Your task to perform on an android device: Open the Play Movies app and select the watchlist tab. Image 0: 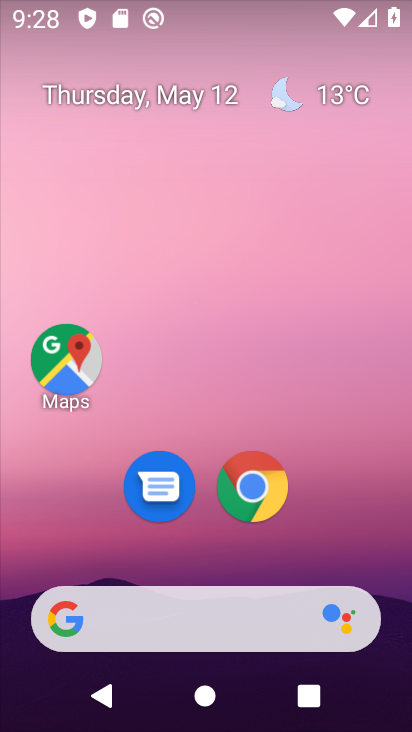
Step 0: drag from (370, 510) to (280, 73)
Your task to perform on an android device: Open the Play Movies app and select the watchlist tab. Image 1: 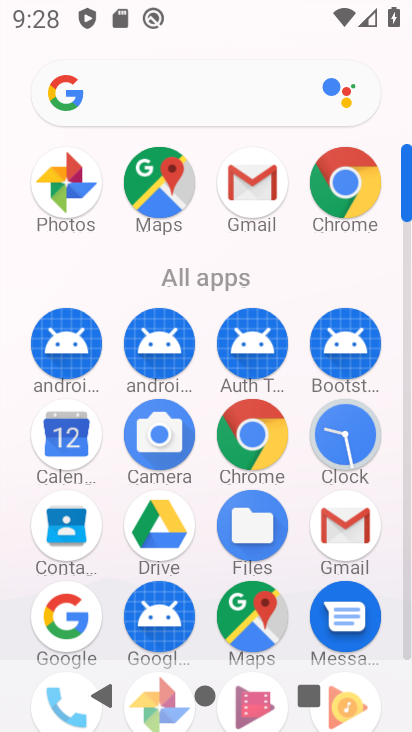
Step 1: drag from (292, 284) to (255, 203)
Your task to perform on an android device: Open the Play Movies app and select the watchlist tab. Image 2: 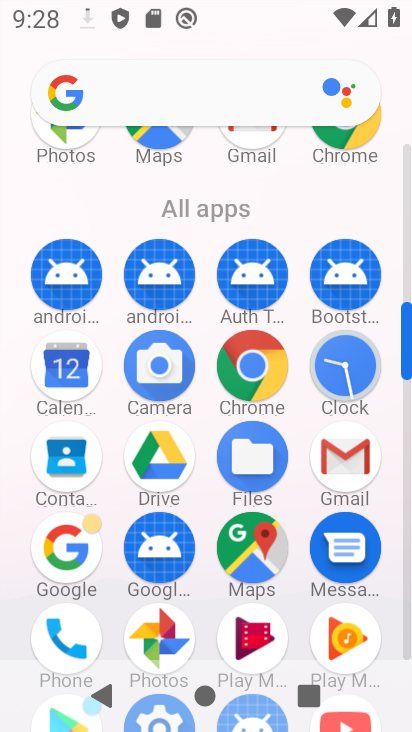
Step 2: click (251, 642)
Your task to perform on an android device: Open the Play Movies app and select the watchlist tab. Image 3: 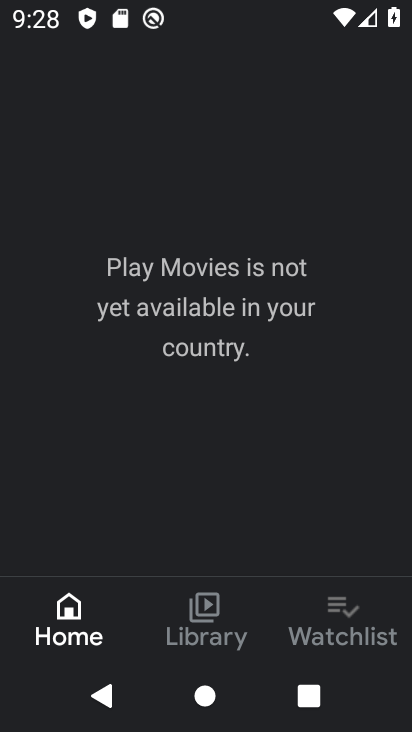
Step 3: click (336, 619)
Your task to perform on an android device: Open the Play Movies app and select the watchlist tab. Image 4: 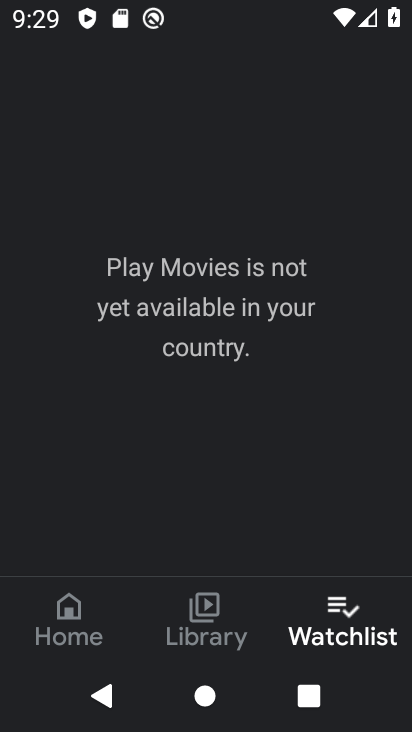
Step 4: task complete